Your task to perform on an android device: change text size in settings app Image 0: 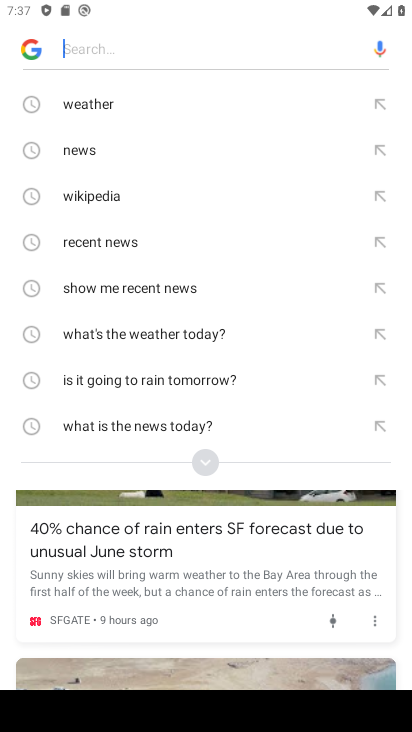
Step 0: press home button
Your task to perform on an android device: change text size in settings app Image 1: 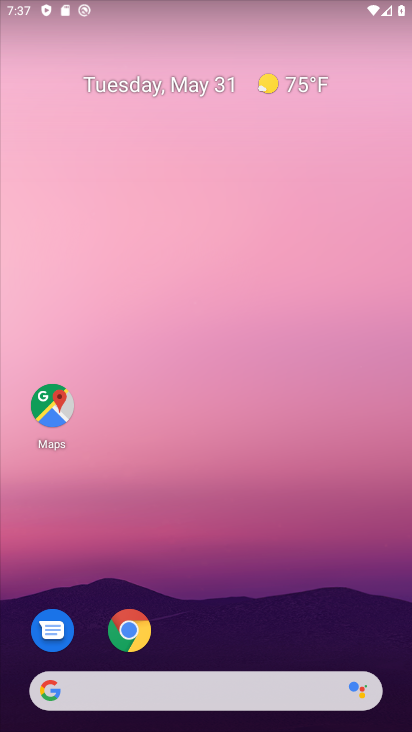
Step 1: drag from (231, 640) to (219, 52)
Your task to perform on an android device: change text size in settings app Image 2: 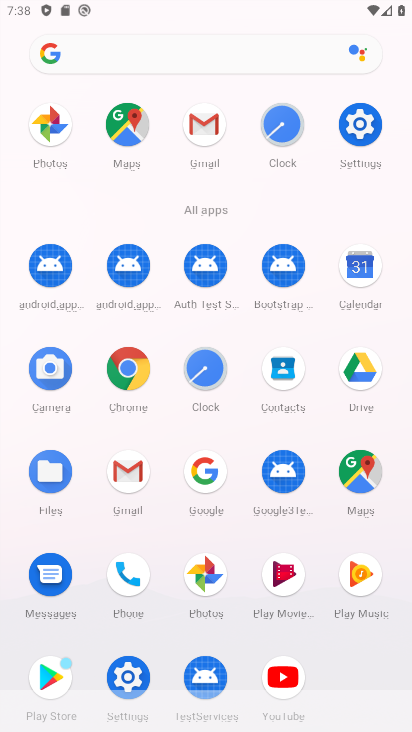
Step 2: click (367, 131)
Your task to perform on an android device: change text size in settings app Image 3: 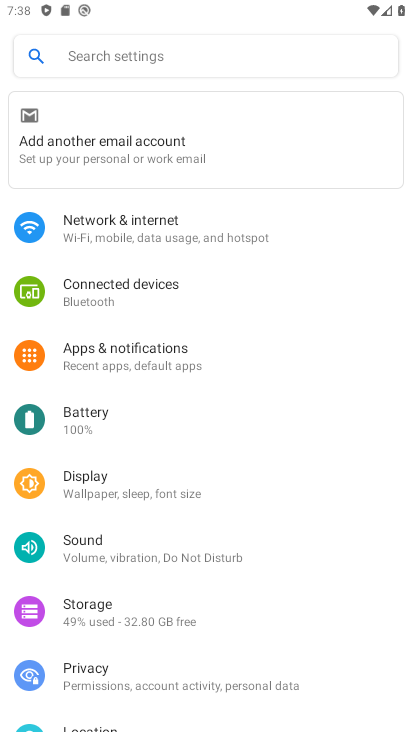
Step 3: click (126, 491)
Your task to perform on an android device: change text size in settings app Image 4: 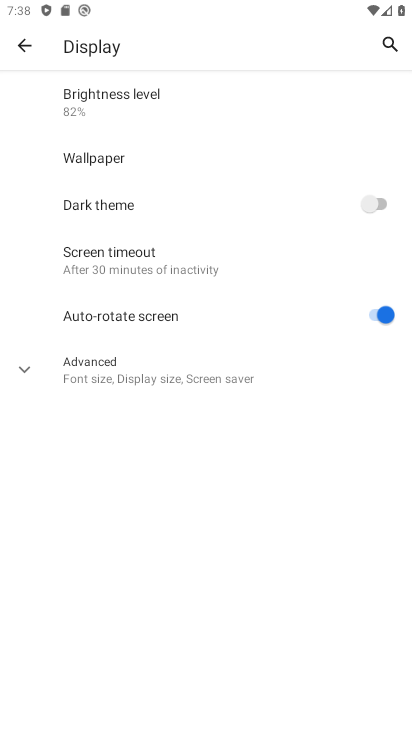
Step 4: click (129, 369)
Your task to perform on an android device: change text size in settings app Image 5: 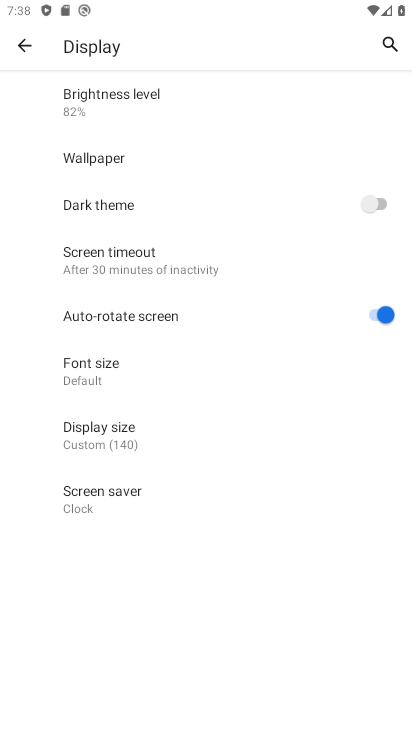
Step 5: click (170, 369)
Your task to perform on an android device: change text size in settings app Image 6: 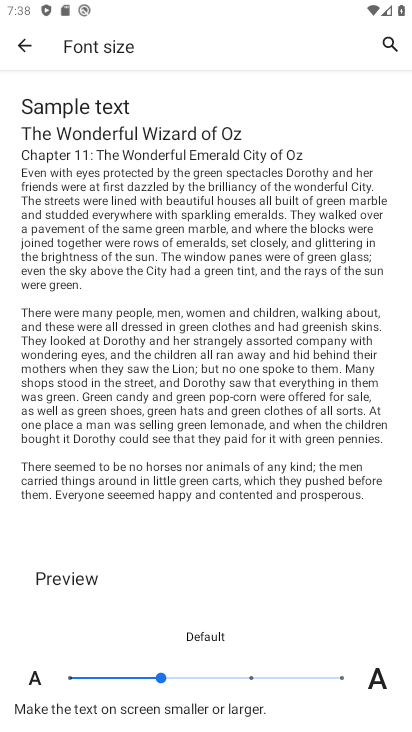
Step 6: click (251, 678)
Your task to perform on an android device: change text size in settings app Image 7: 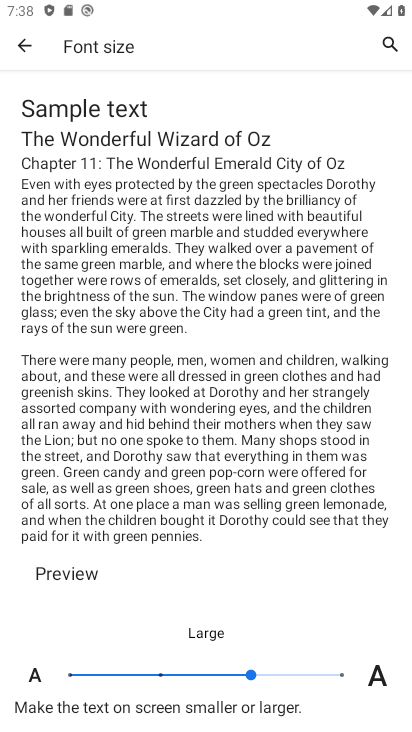
Step 7: task complete